Your task to perform on an android device: Open ESPN.com Image 0: 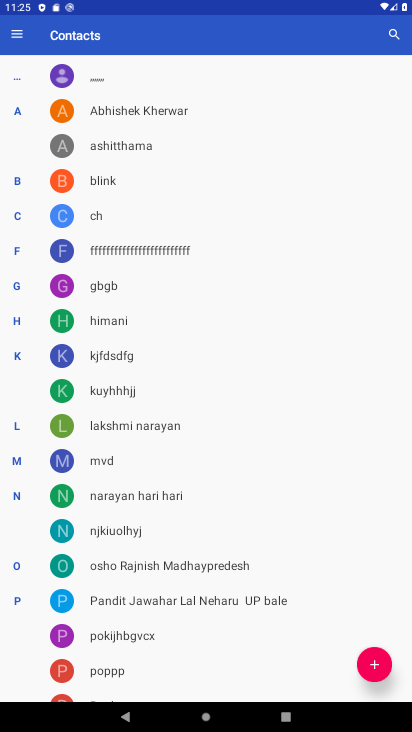
Step 0: press home button
Your task to perform on an android device: Open ESPN.com Image 1: 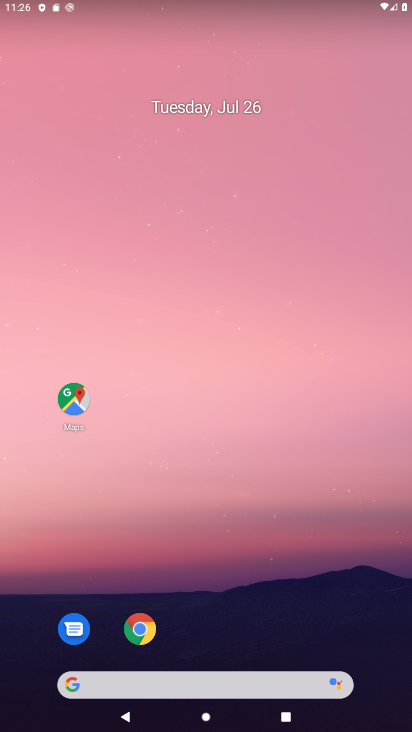
Step 1: click (138, 628)
Your task to perform on an android device: Open ESPN.com Image 2: 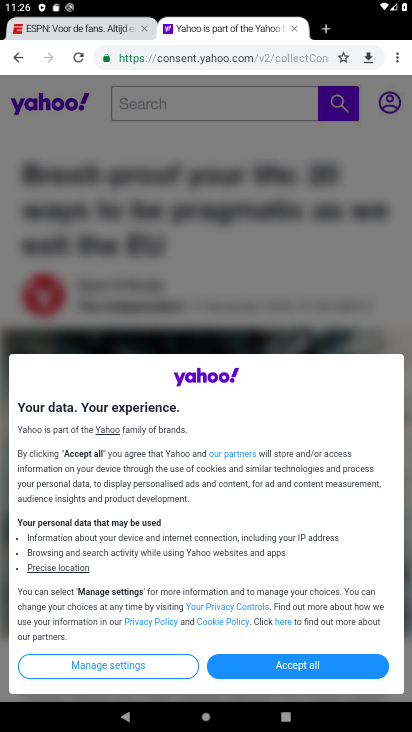
Step 2: click (393, 65)
Your task to perform on an android device: Open ESPN.com Image 3: 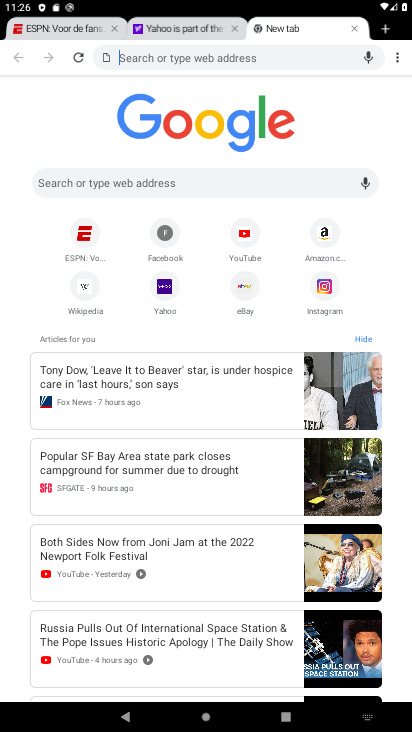
Step 3: click (80, 244)
Your task to perform on an android device: Open ESPN.com Image 4: 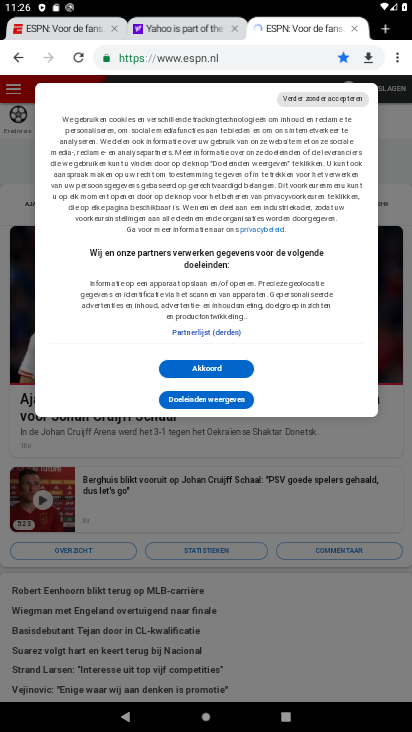
Step 4: click (203, 370)
Your task to perform on an android device: Open ESPN.com Image 5: 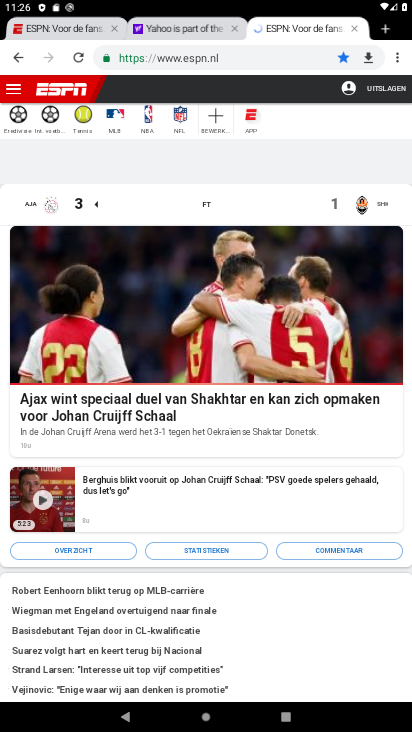
Step 5: task complete